Your task to perform on an android device: Search for the best rated kitchen reno kits on Lowes.com Image 0: 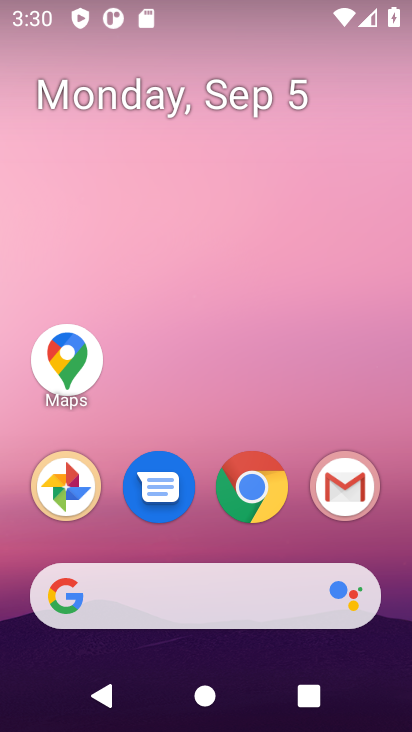
Step 0: drag from (301, 523) to (385, 200)
Your task to perform on an android device: Search for the best rated kitchen reno kits on Lowes.com Image 1: 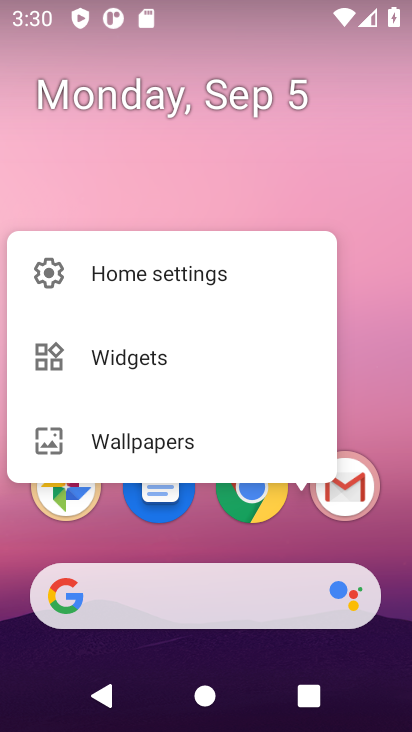
Step 1: click (93, 195)
Your task to perform on an android device: Search for the best rated kitchen reno kits on Lowes.com Image 2: 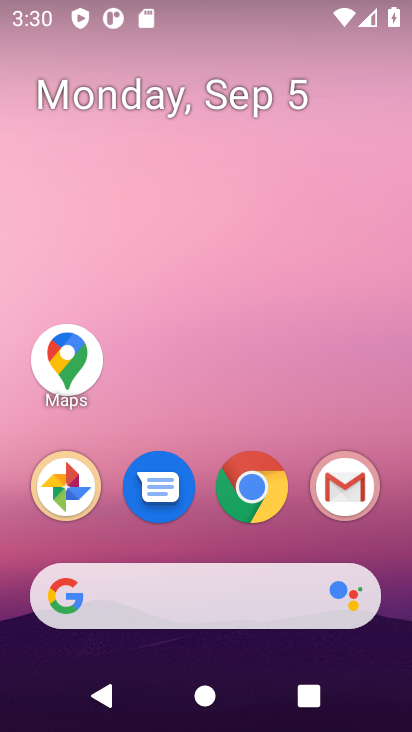
Step 2: click (258, 493)
Your task to perform on an android device: Search for the best rated kitchen reno kits on Lowes.com Image 3: 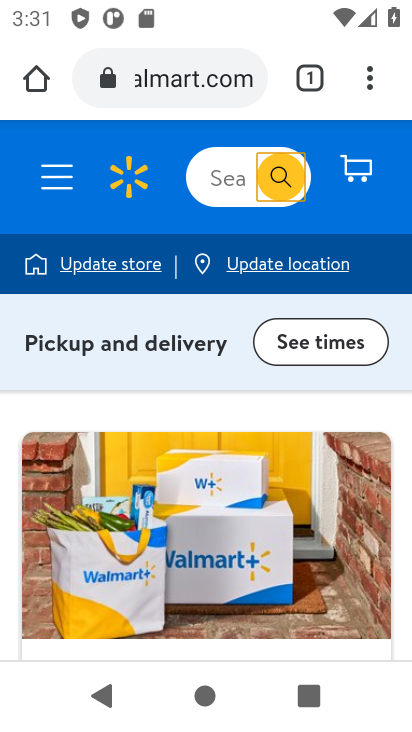
Step 3: click (226, 77)
Your task to perform on an android device: Search for the best rated kitchen reno kits on Lowes.com Image 4: 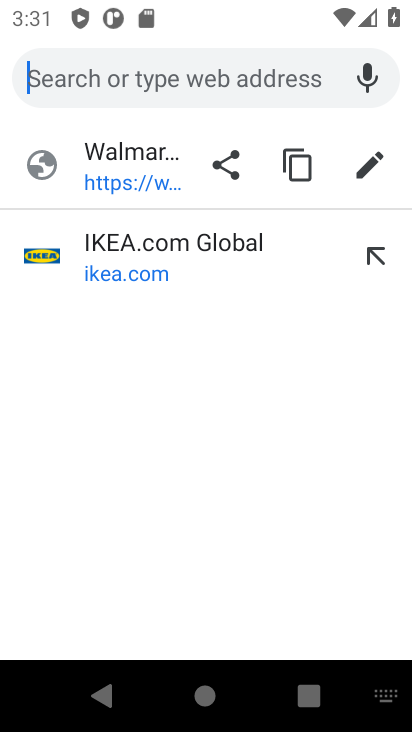
Step 4: type "Lowes.com"
Your task to perform on an android device: Search for the best rated kitchen reno kits on Lowes.com Image 5: 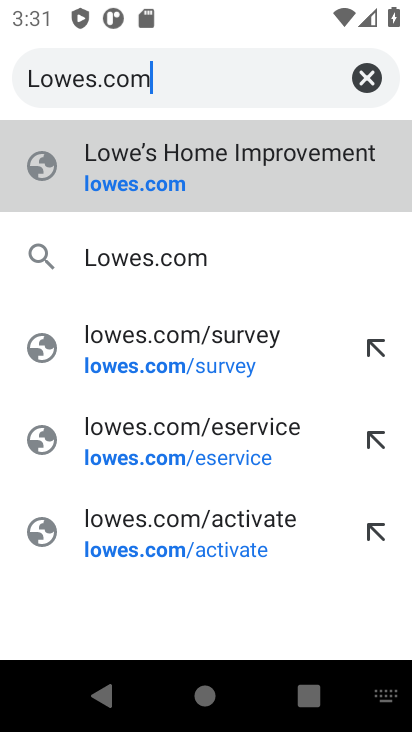
Step 5: click (112, 182)
Your task to perform on an android device: Search for the best rated kitchen reno kits on Lowes.com Image 6: 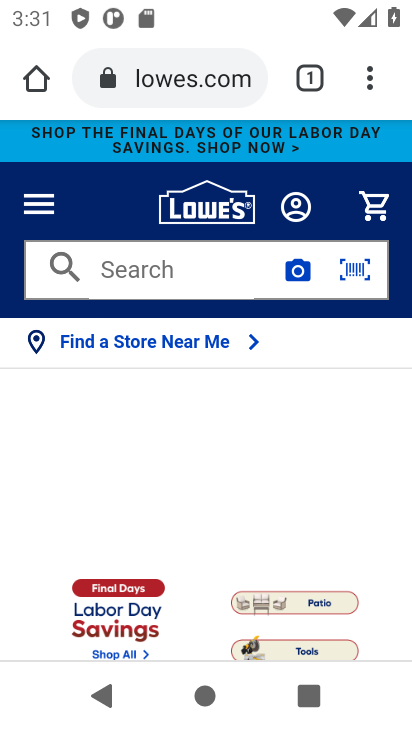
Step 6: click (138, 267)
Your task to perform on an android device: Search for the best rated kitchen reno kits on Lowes.com Image 7: 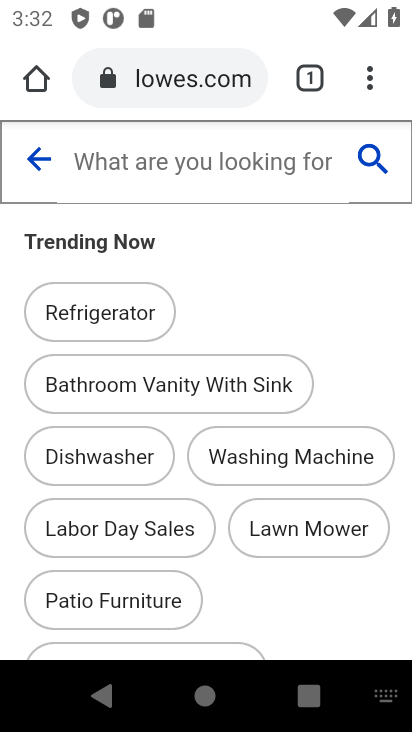
Step 7: type " best rated kitchen reno kits"
Your task to perform on an android device: Search for the best rated kitchen reno kits on Lowes.com Image 8: 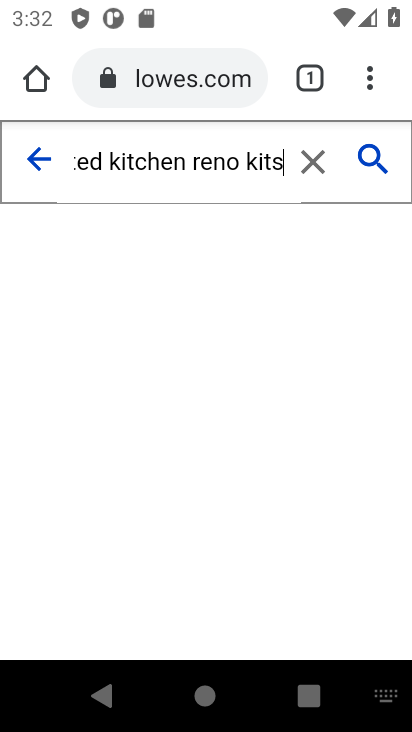
Step 8: task complete